Your task to perform on an android device: Turn on the flashlight Image 0: 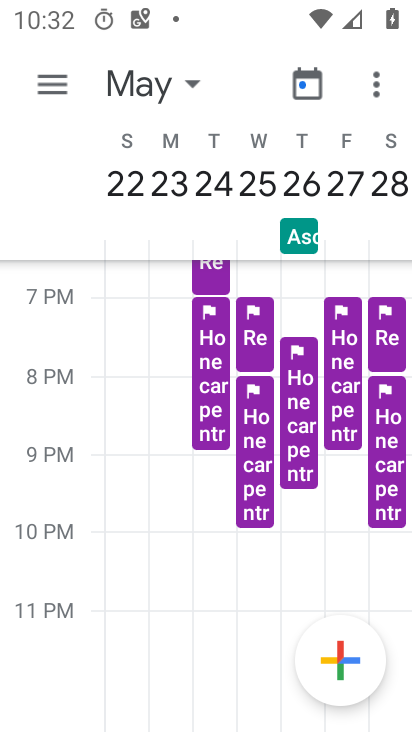
Step 0: press home button
Your task to perform on an android device: Turn on the flashlight Image 1: 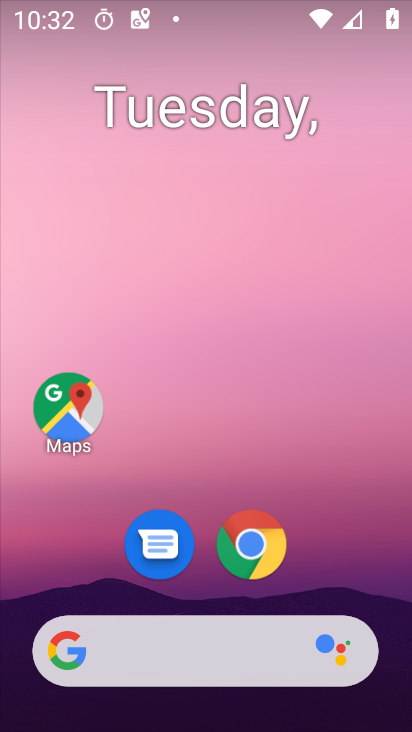
Step 1: drag from (203, 8) to (213, 333)
Your task to perform on an android device: Turn on the flashlight Image 2: 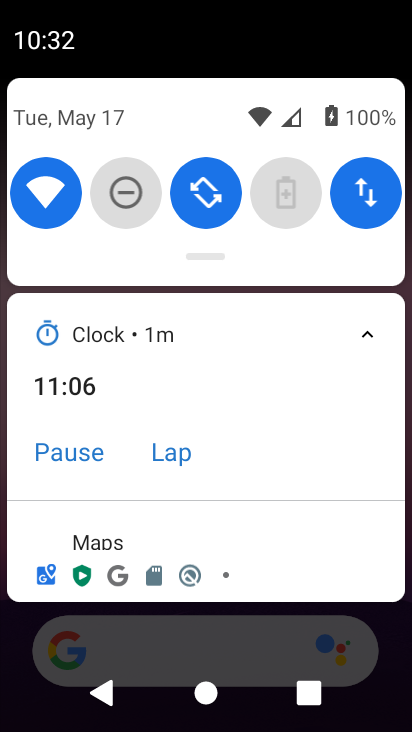
Step 2: drag from (245, 226) to (257, 579)
Your task to perform on an android device: Turn on the flashlight Image 3: 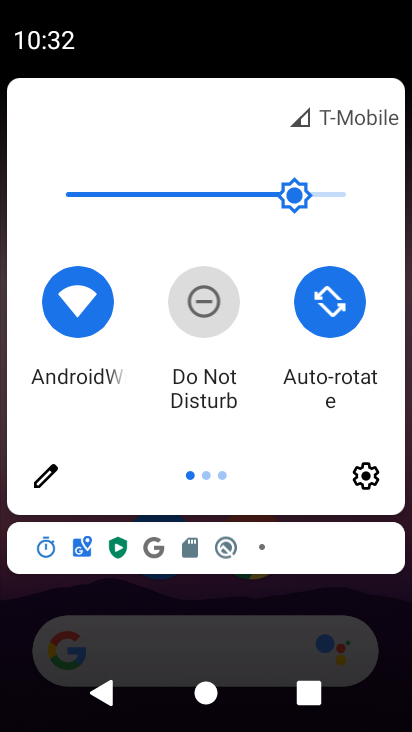
Step 3: click (39, 477)
Your task to perform on an android device: Turn on the flashlight Image 4: 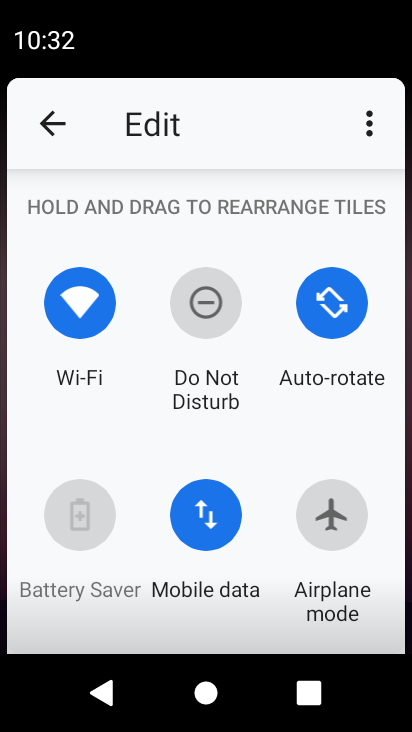
Step 4: task complete